Your task to perform on an android device: Search for sushi restaurants on Maps Image 0: 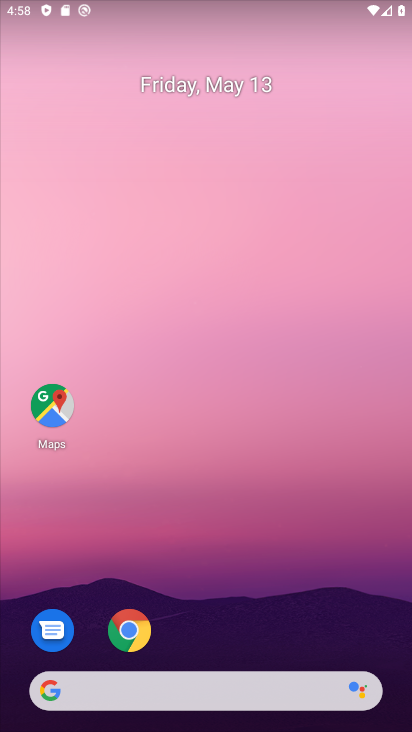
Step 0: drag from (330, 614) to (341, 84)
Your task to perform on an android device: Search for sushi restaurants on Maps Image 1: 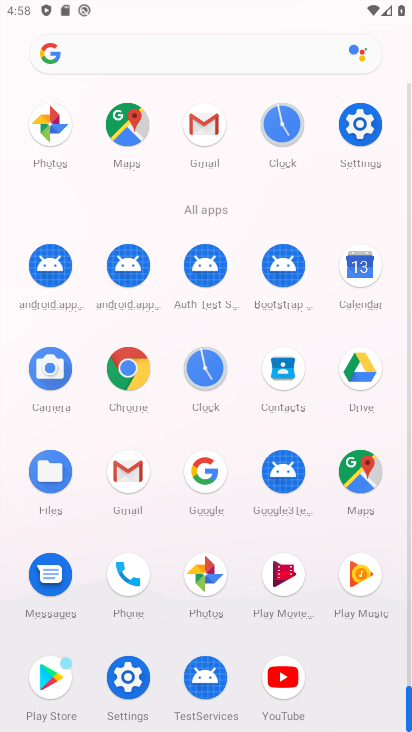
Step 1: click (356, 476)
Your task to perform on an android device: Search for sushi restaurants on Maps Image 2: 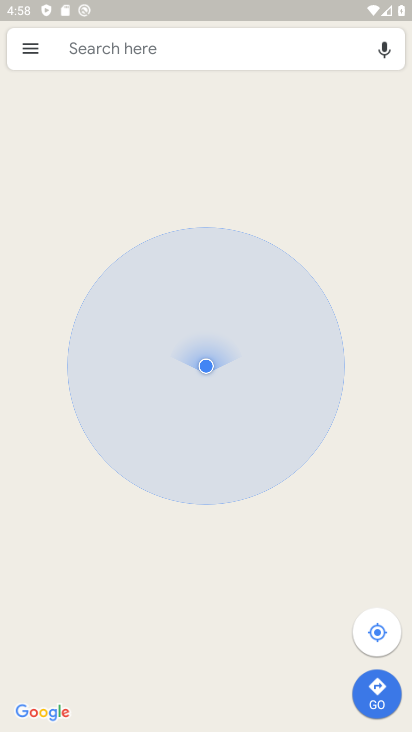
Step 2: click (256, 45)
Your task to perform on an android device: Search for sushi restaurants on Maps Image 3: 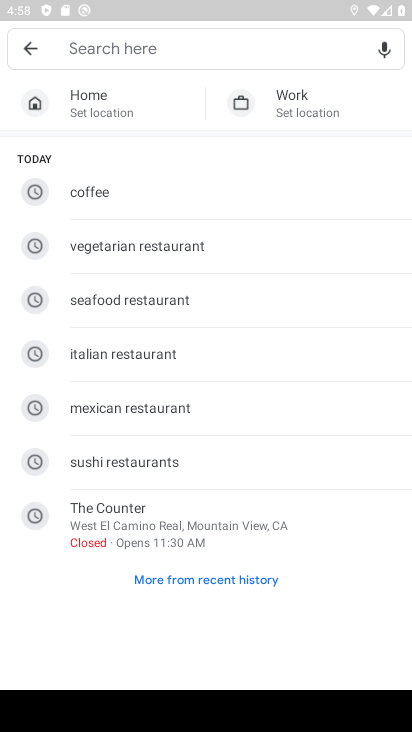
Step 3: type "sushi restaurants"
Your task to perform on an android device: Search for sushi restaurants on Maps Image 4: 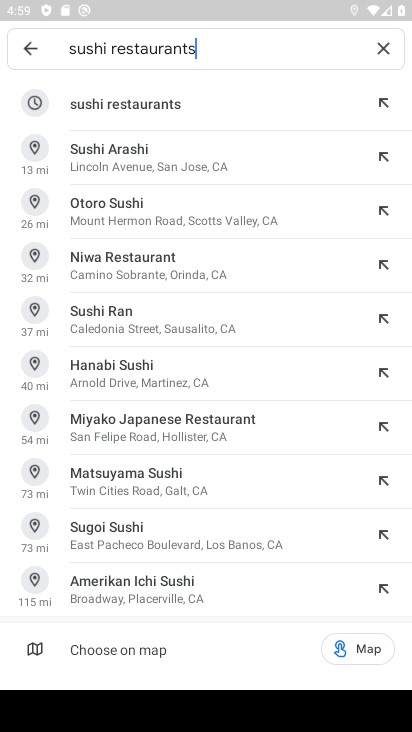
Step 4: click (181, 109)
Your task to perform on an android device: Search for sushi restaurants on Maps Image 5: 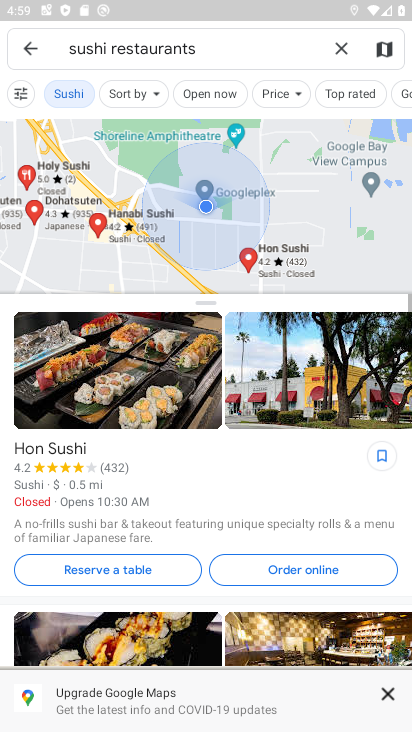
Step 5: task complete